Your task to perform on an android device: add a contact Image 0: 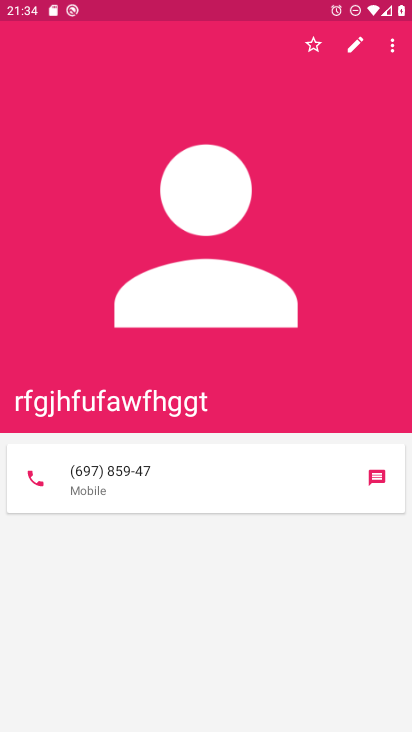
Step 0: press home button
Your task to perform on an android device: add a contact Image 1: 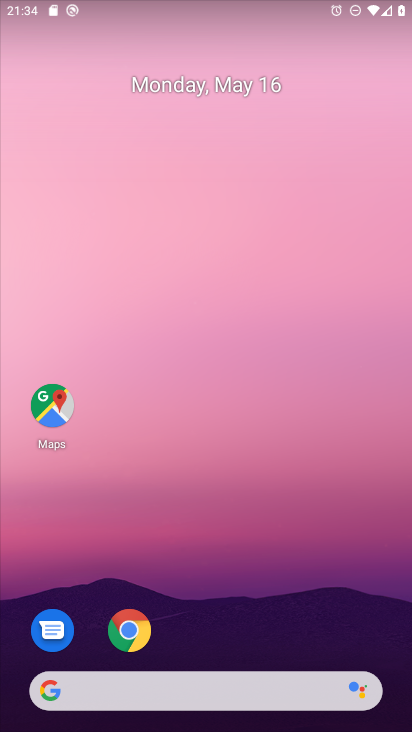
Step 1: drag from (261, 605) to (231, 381)
Your task to perform on an android device: add a contact Image 2: 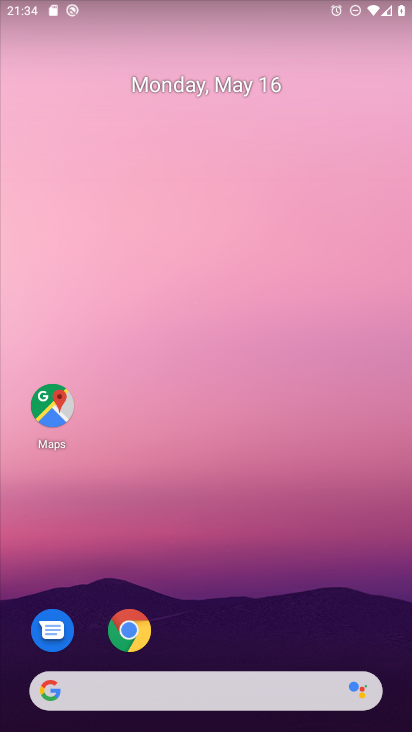
Step 2: drag from (198, 644) to (198, 171)
Your task to perform on an android device: add a contact Image 3: 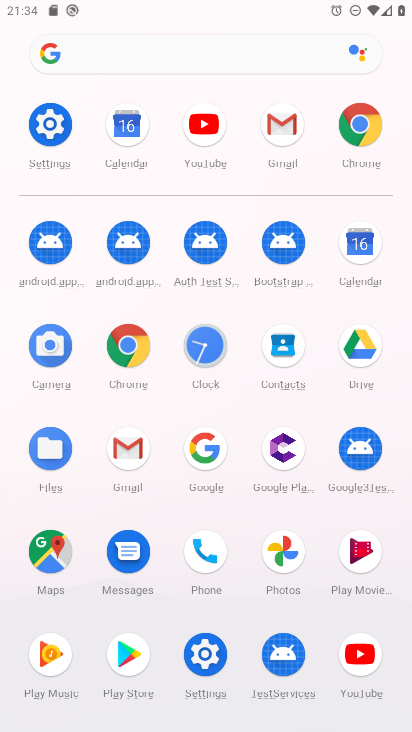
Step 3: click (278, 356)
Your task to perform on an android device: add a contact Image 4: 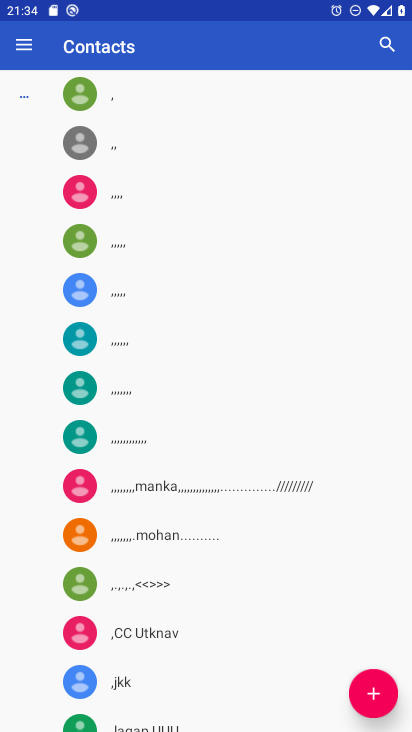
Step 4: click (371, 701)
Your task to perform on an android device: add a contact Image 5: 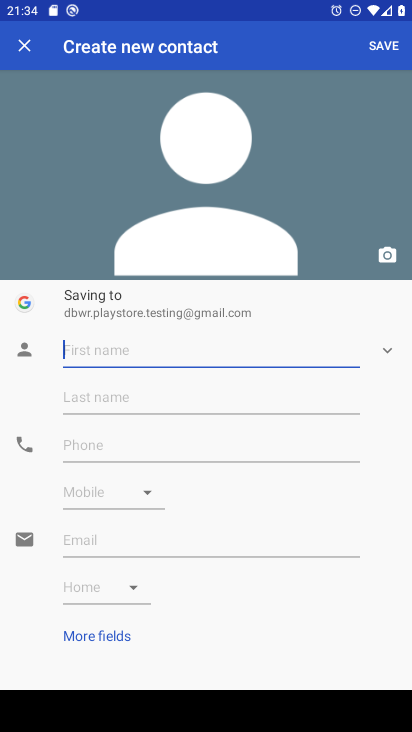
Step 5: type "seftggg"
Your task to perform on an android device: add a contact Image 6: 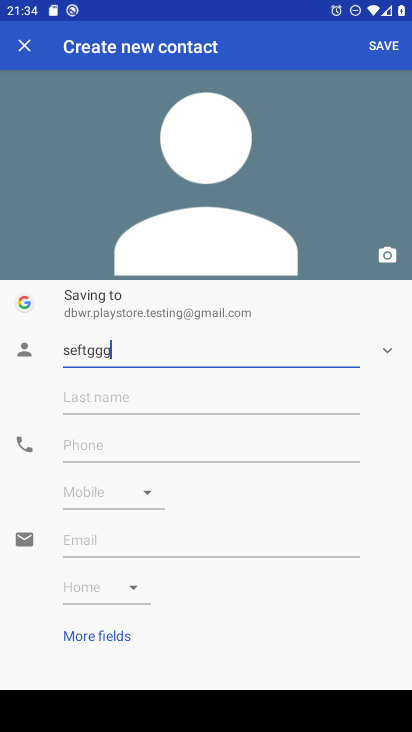
Step 6: click (83, 442)
Your task to perform on an android device: add a contact Image 7: 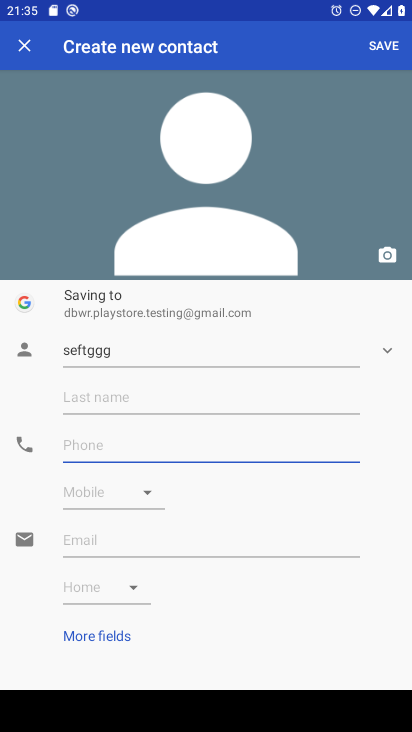
Step 7: click (83, 442)
Your task to perform on an android device: add a contact Image 8: 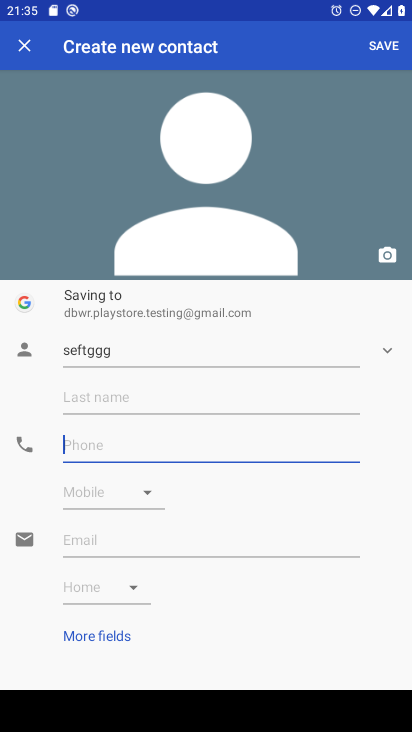
Step 8: type "987356"
Your task to perform on an android device: add a contact Image 9: 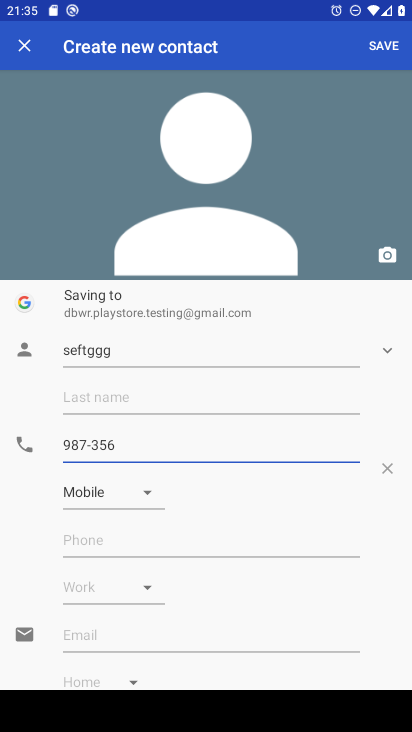
Step 9: click (378, 47)
Your task to perform on an android device: add a contact Image 10: 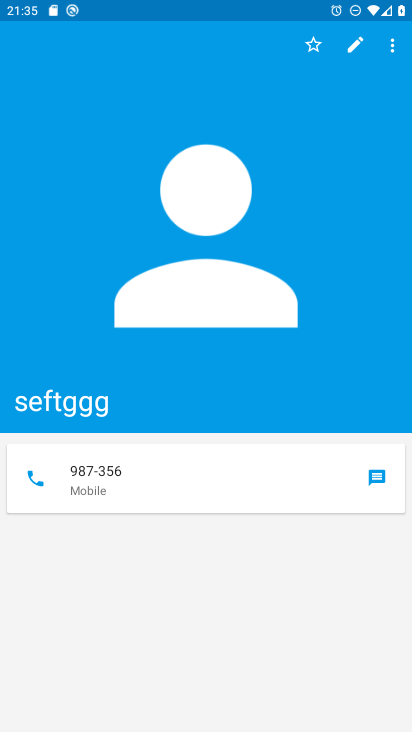
Step 10: task complete